Your task to perform on an android device: delete a single message in the gmail app Image 0: 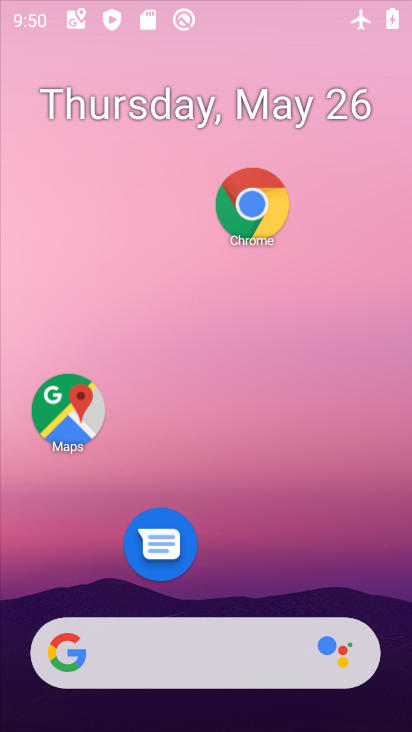
Step 0: press home button
Your task to perform on an android device: delete a single message in the gmail app Image 1: 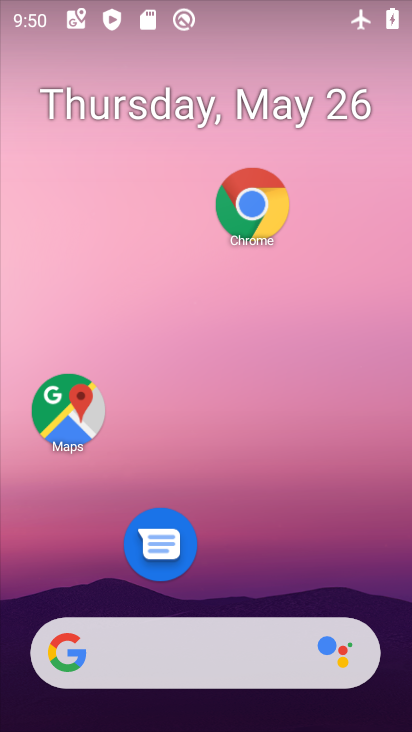
Step 1: drag from (225, 596) to (219, 115)
Your task to perform on an android device: delete a single message in the gmail app Image 2: 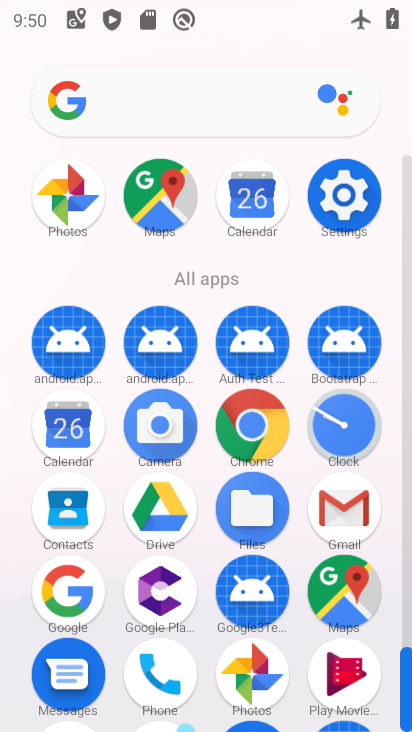
Step 2: click (343, 500)
Your task to perform on an android device: delete a single message in the gmail app Image 3: 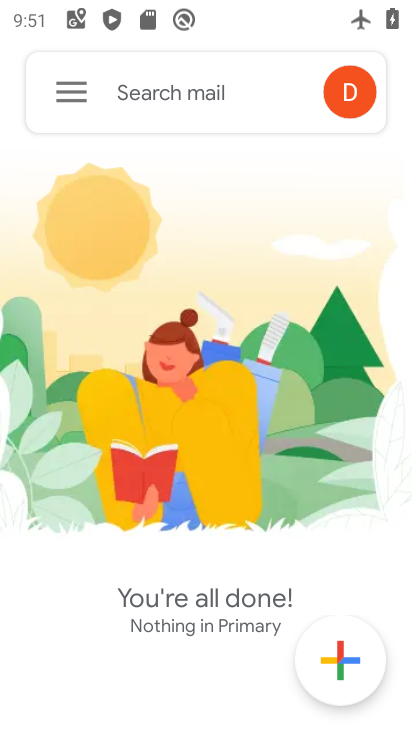
Step 3: click (71, 88)
Your task to perform on an android device: delete a single message in the gmail app Image 4: 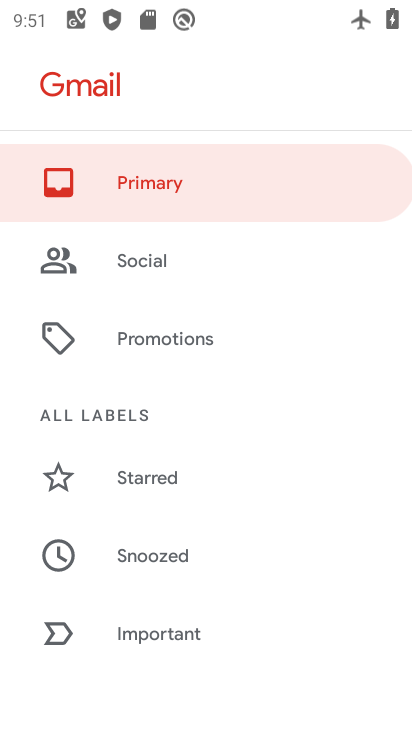
Step 4: task complete